Your task to perform on an android device: open a bookmark in the chrome app Image 0: 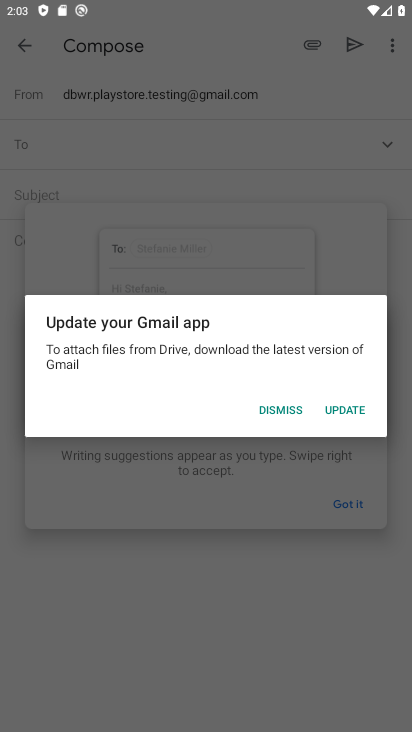
Step 0: press home button
Your task to perform on an android device: open a bookmark in the chrome app Image 1: 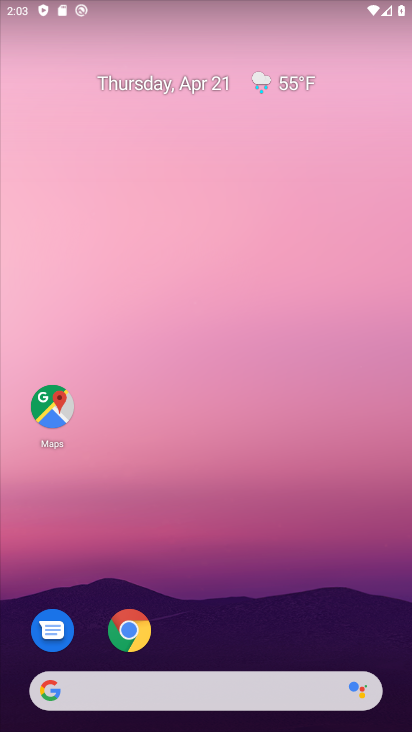
Step 1: click (131, 640)
Your task to perform on an android device: open a bookmark in the chrome app Image 2: 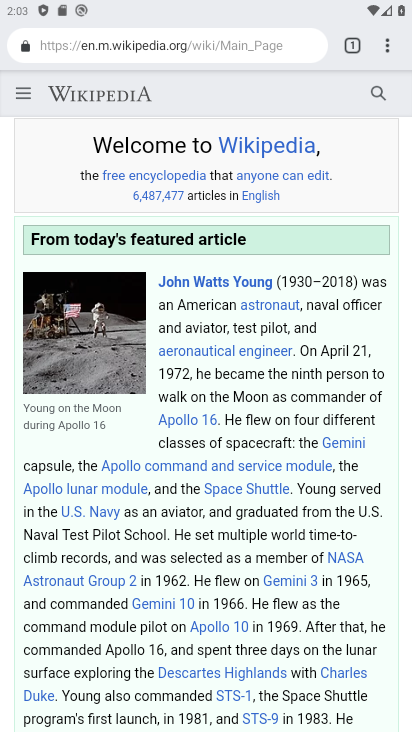
Step 2: task complete